Your task to perform on an android device: set the stopwatch Image 0: 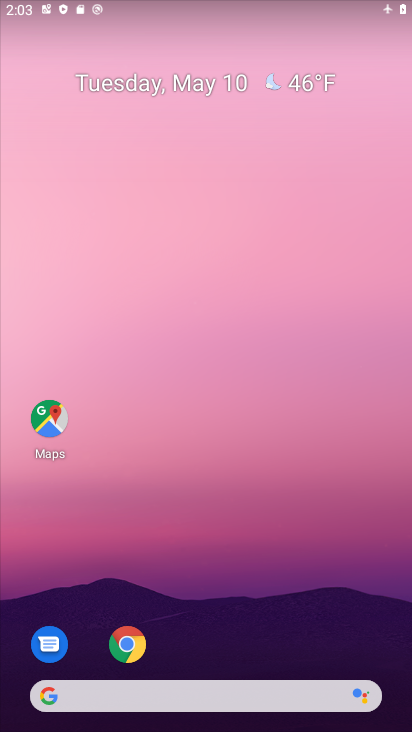
Step 0: drag from (257, 633) to (248, 295)
Your task to perform on an android device: set the stopwatch Image 1: 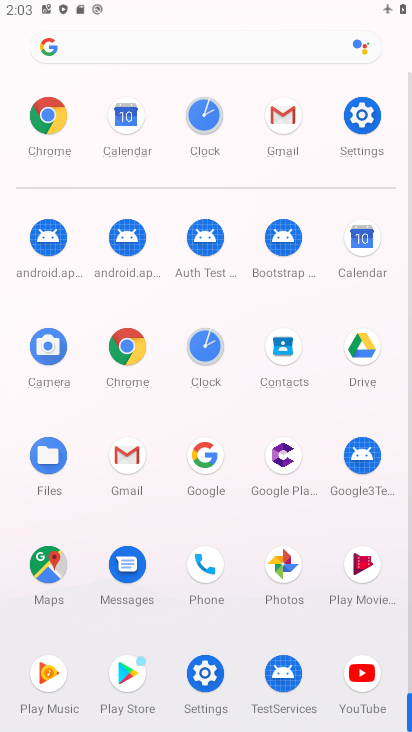
Step 1: drag from (165, 314) to (168, 165)
Your task to perform on an android device: set the stopwatch Image 2: 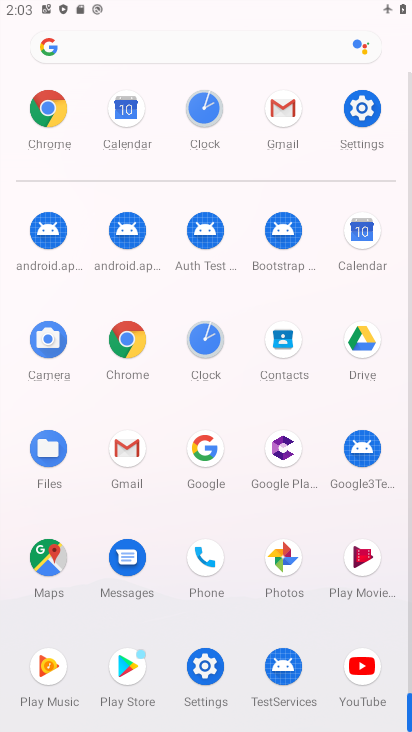
Step 2: click (207, 351)
Your task to perform on an android device: set the stopwatch Image 3: 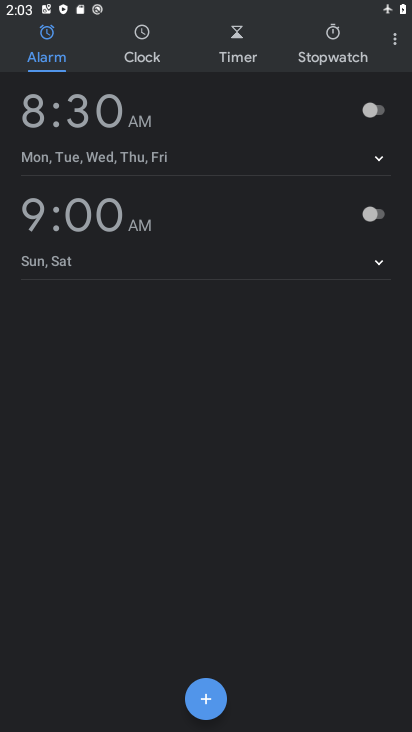
Step 3: click (339, 37)
Your task to perform on an android device: set the stopwatch Image 4: 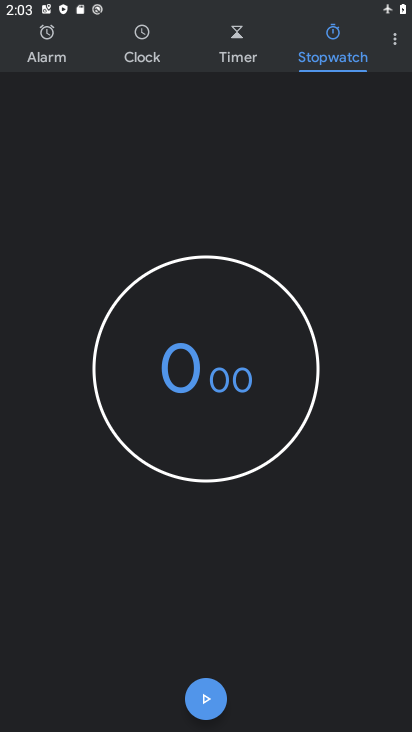
Step 4: click (219, 699)
Your task to perform on an android device: set the stopwatch Image 5: 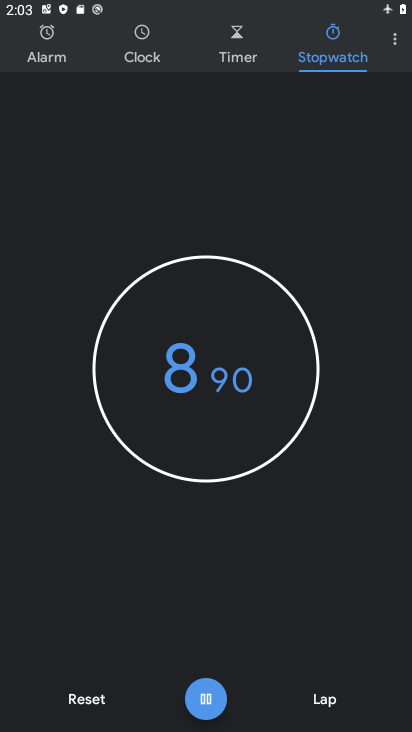
Step 5: click (213, 703)
Your task to perform on an android device: set the stopwatch Image 6: 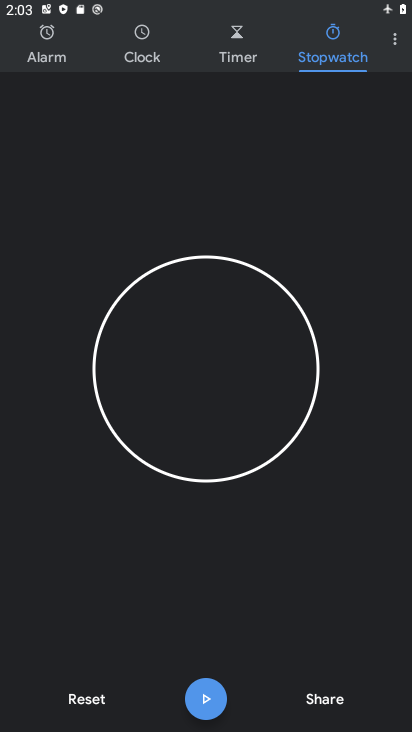
Step 6: task complete